Your task to perform on an android device: turn off data saver in the chrome app Image 0: 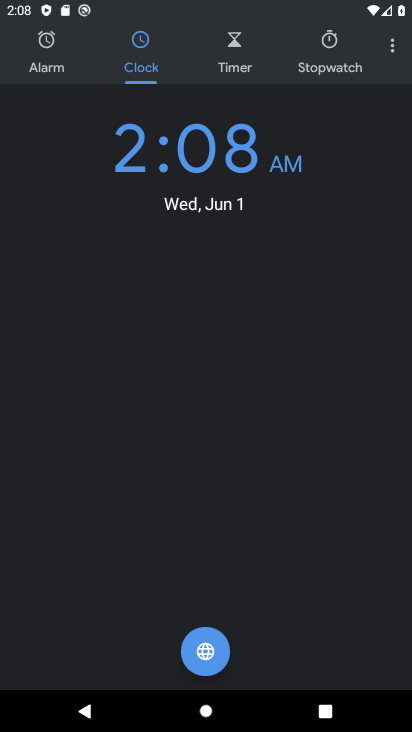
Step 0: press home button
Your task to perform on an android device: turn off data saver in the chrome app Image 1: 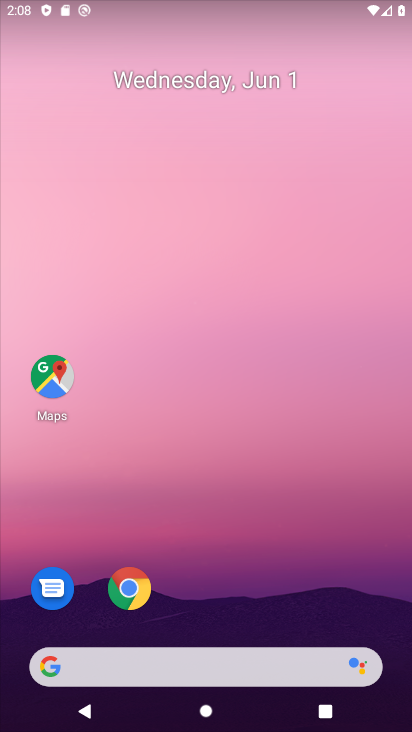
Step 1: click (121, 592)
Your task to perform on an android device: turn off data saver in the chrome app Image 2: 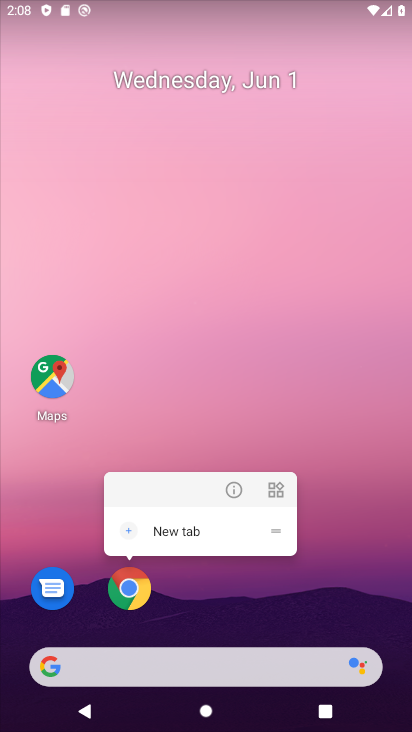
Step 2: click (128, 589)
Your task to perform on an android device: turn off data saver in the chrome app Image 3: 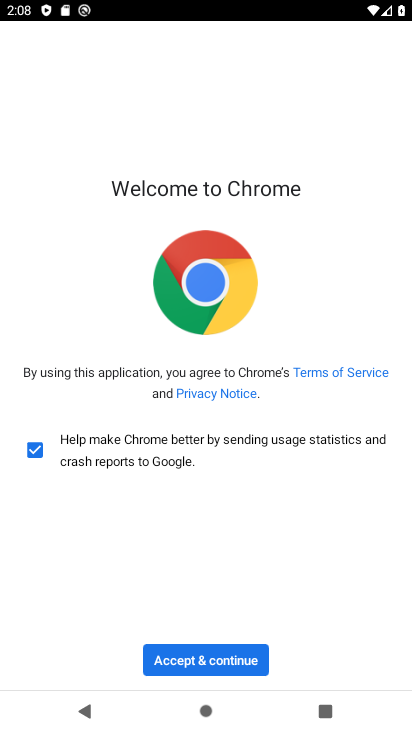
Step 3: click (202, 661)
Your task to perform on an android device: turn off data saver in the chrome app Image 4: 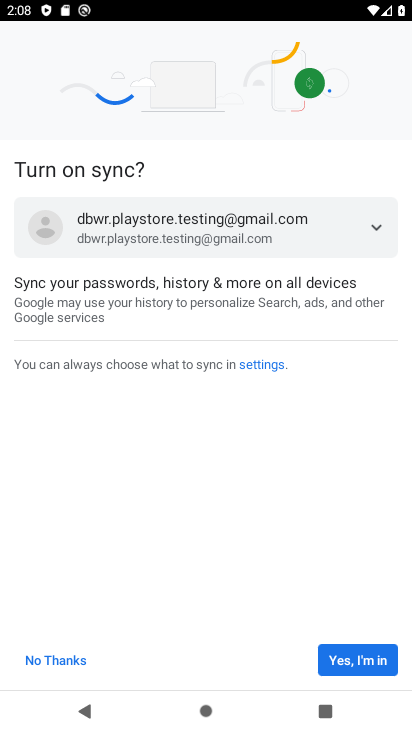
Step 4: click (399, 656)
Your task to perform on an android device: turn off data saver in the chrome app Image 5: 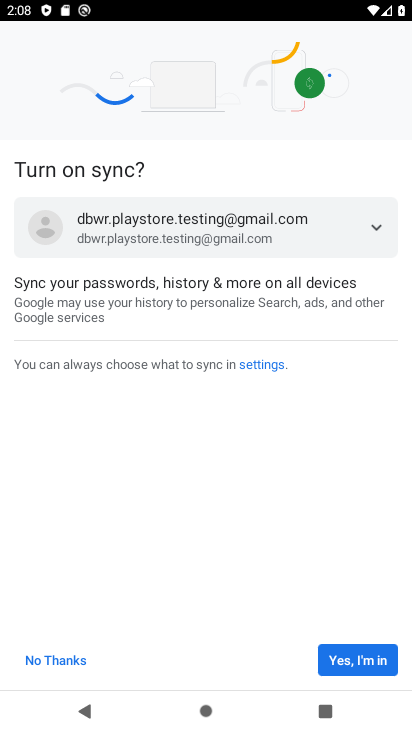
Step 5: click (365, 651)
Your task to perform on an android device: turn off data saver in the chrome app Image 6: 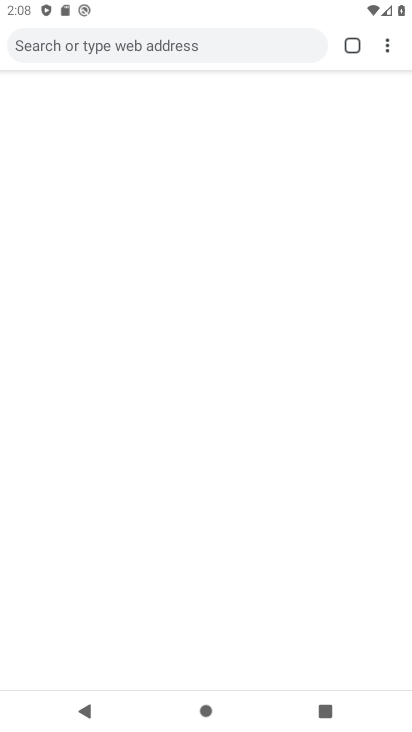
Step 6: click (303, 665)
Your task to perform on an android device: turn off data saver in the chrome app Image 7: 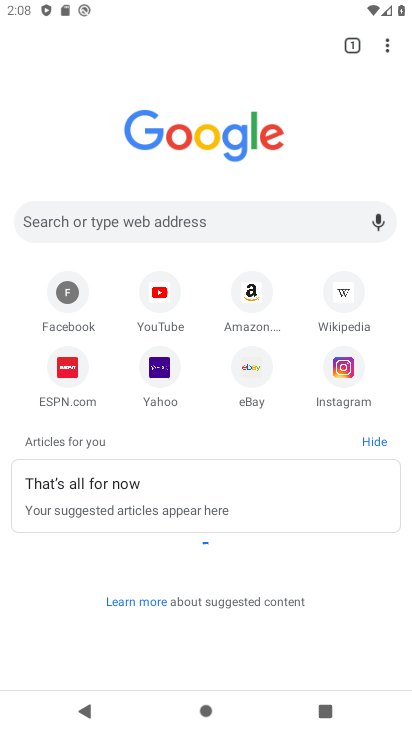
Step 7: drag from (386, 48) to (273, 381)
Your task to perform on an android device: turn off data saver in the chrome app Image 8: 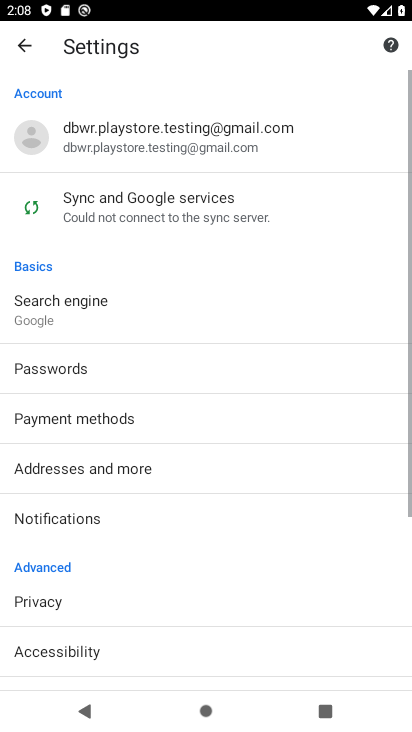
Step 8: drag from (145, 683) to (286, 253)
Your task to perform on an android device: turn off data saver in the chrome app Image 9: 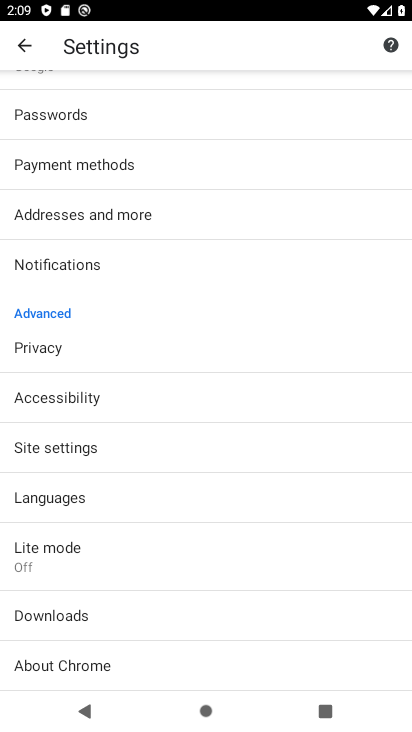
Step 9: click (114, 570)
Your task to perform on an android device: turn off data saver in the chrome app Image 10: 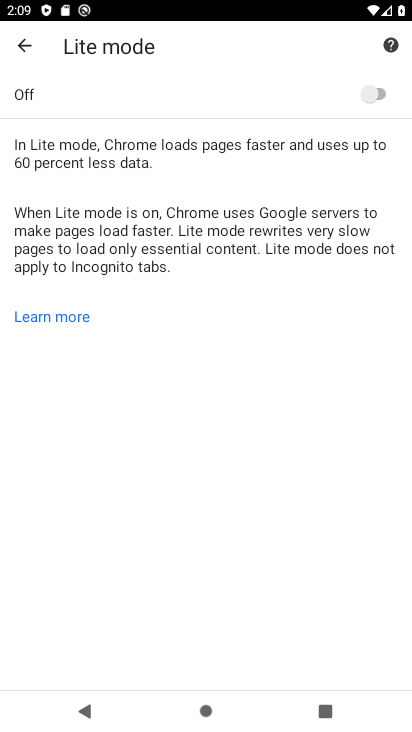
Step 10: task complete